Your task to perform on an android device: see tabs open on other devices in the chrome app Image 0: 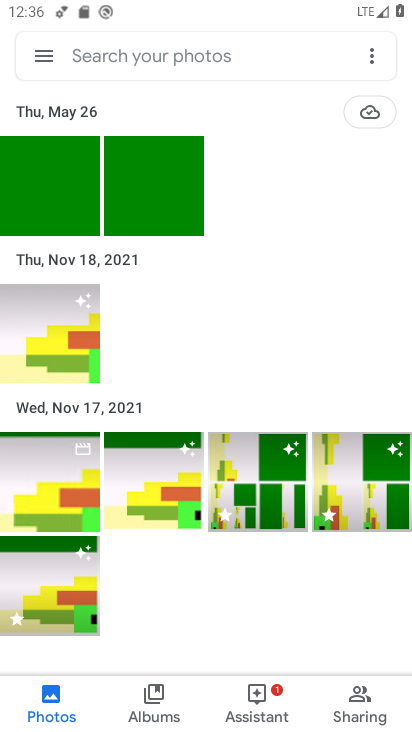
Step 0: press home button
Your task to perform on an android device: see tabs open on other devices in the chrome app Image 1: 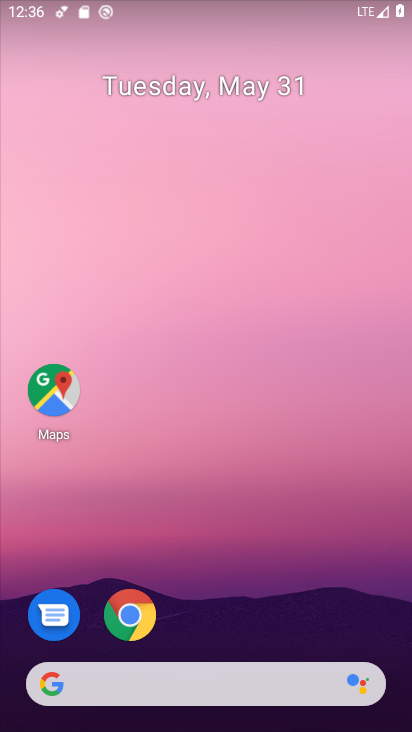
Step 1: click (135, 607)
Your task to perform on an android device: see tabs open on other devices in the chrome app Image 2: 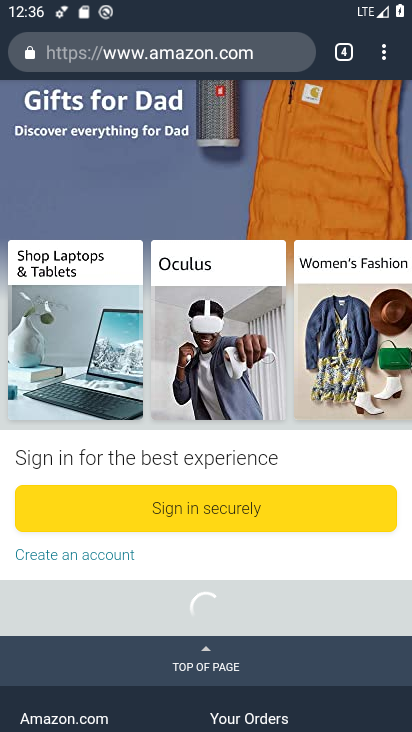
Step 2: click (385, 56)
Your task to perform on an android device: see tabs open on other devices in the chrome app Image 3: 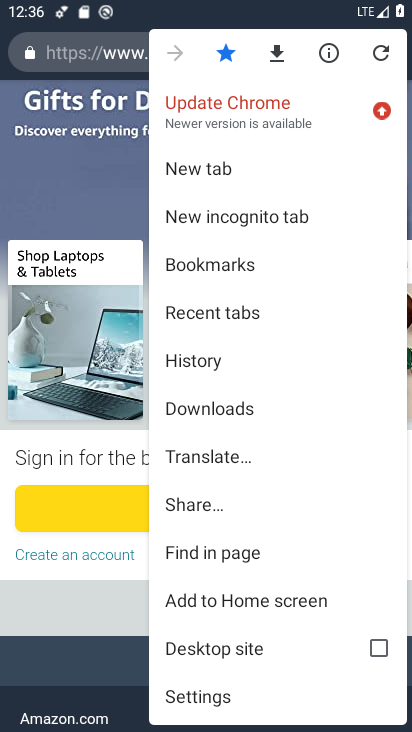
Step 3: click (229, 315)
Your task to perform on an android device: see tabs open on other devices in the chrome app Image 4: 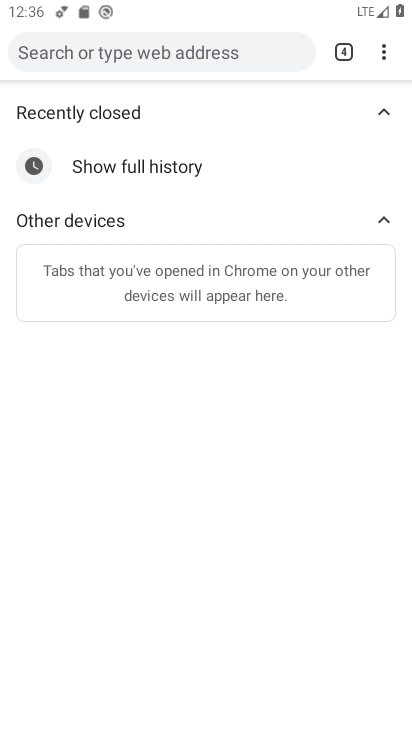
Step 4: task complete